Your task to perform on an android device: toggle sleep mode Image 0: 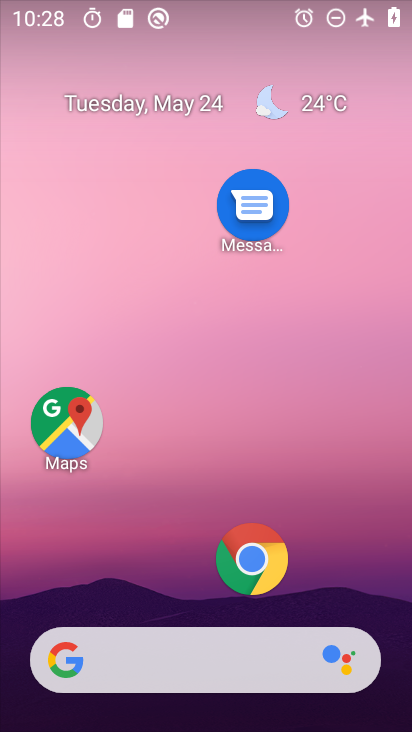
Step 0: drag from (192, 590) to (194, 139)
Your task to perform on an android device: toggle sleep mode Image 1: 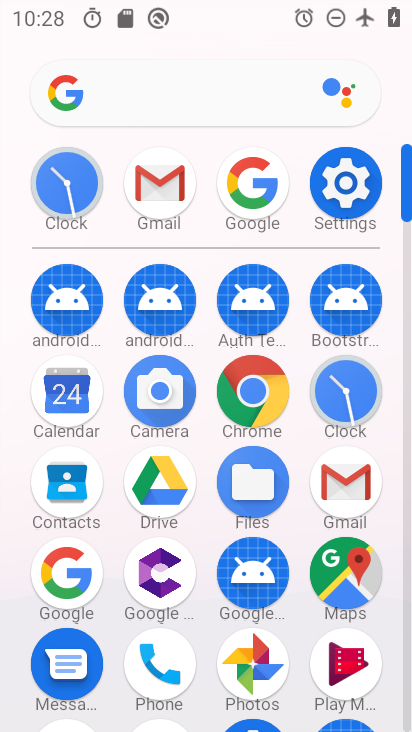
Step 1: click (340, 182)
Your task to perform on an android device: toggle sleep mode Image 2: 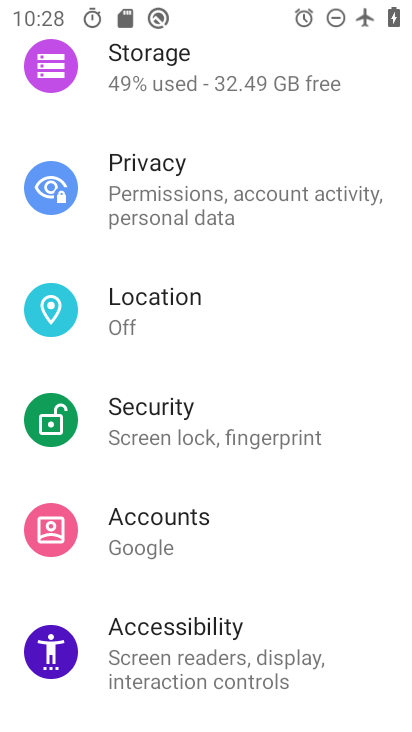
Step 2: drag from (217, 238) to (249, 586)
Your task to perform on an android device: toggle sleep mode Image 3: 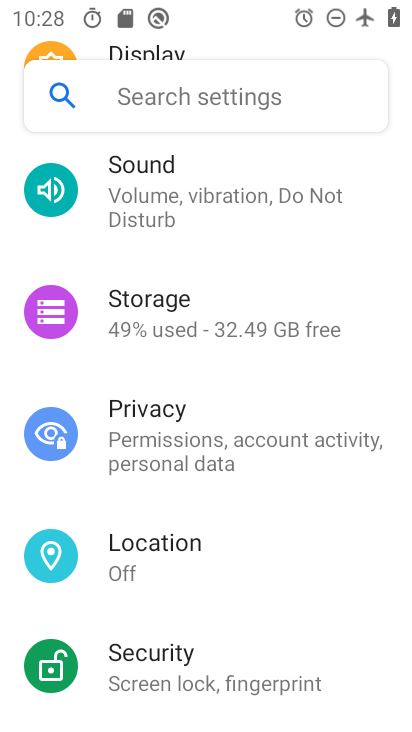
Step 3: drag from (216, 231) to (216, 544)
Your task to perform on an android device: toggle sleep mode Image 4: 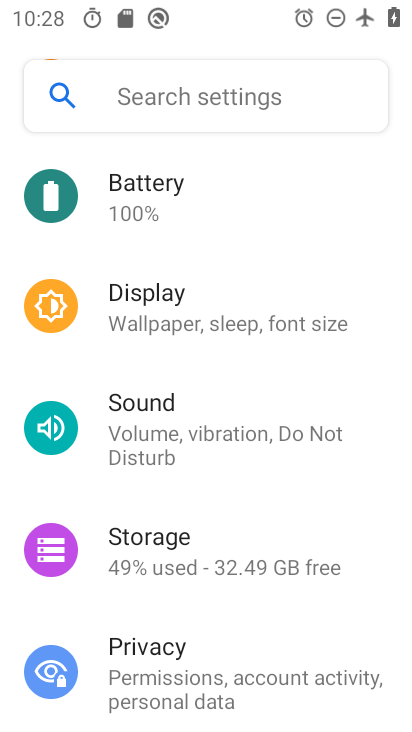
Step 4: click (176, 318)
Your task to perform on an android device: toggle sleep mode Image 5: 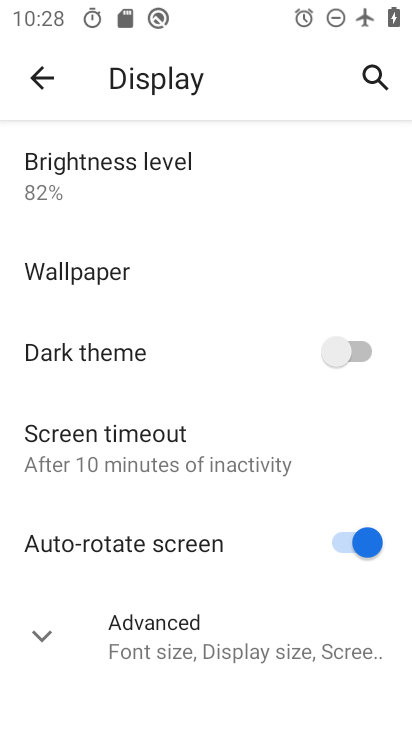
Step 5: click (165, 437)
Your task to perform on an android device: toggle sleep mode Image 6: 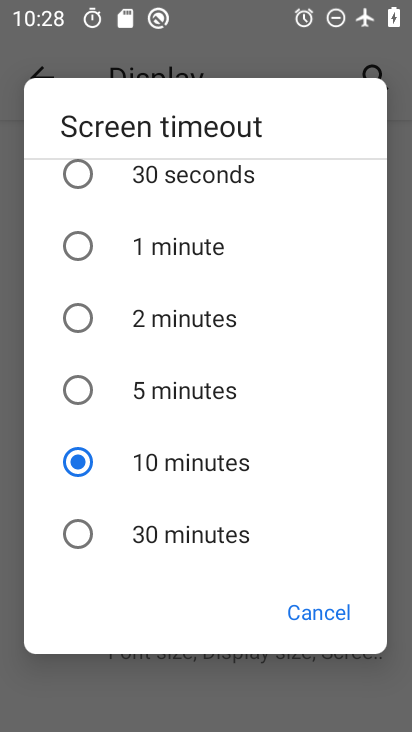
Step 6: click (178, 323)
Your task to perform on an android device: toggle sleep mode Image 7: 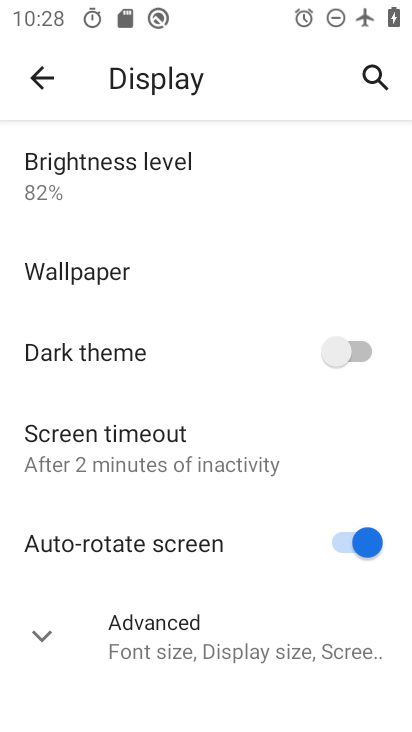
Step 7: task complete